Your task to perform on an android device: Open settings Image 0: 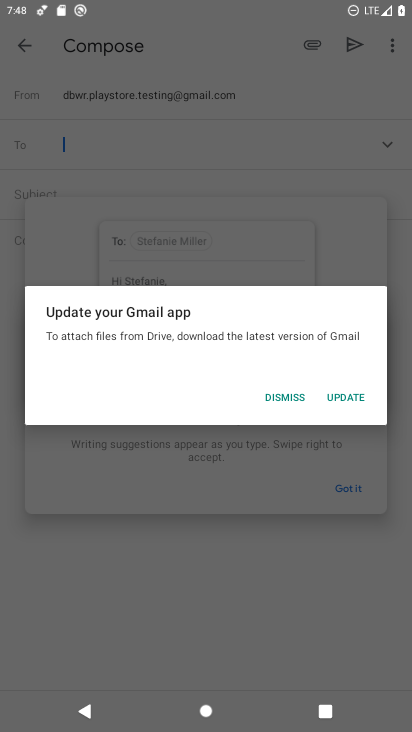
Step 0: press home button
Your task to perform on an android device: Open settings Image 1: 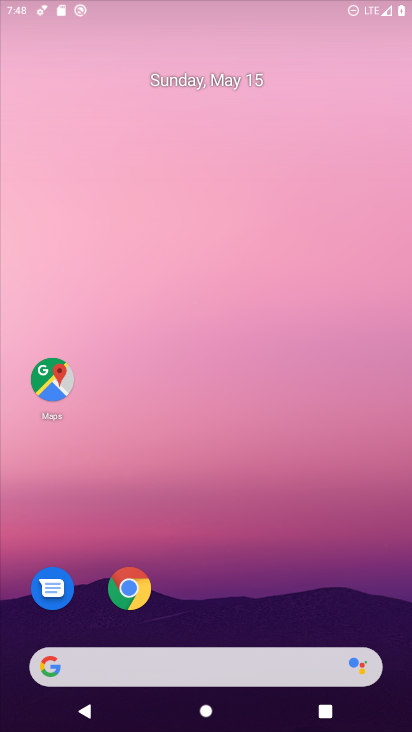
Step 1: drag from (383, 592) to (306, 48)
Your task to perform on an android device: Open settings Image 2: 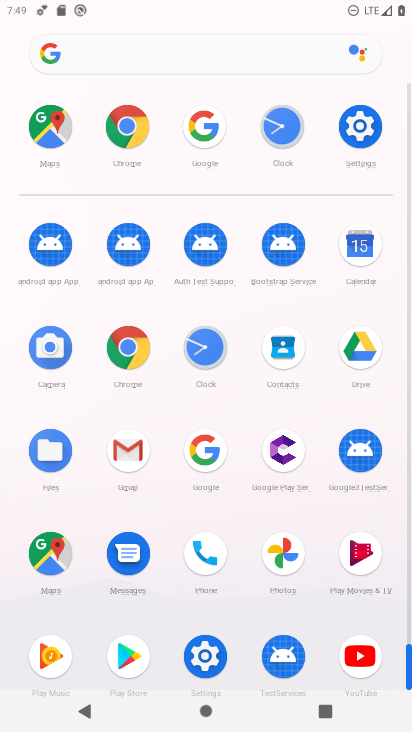
Step 2: click (212, 673)
Your task to perform on an android device: Open settings Image 3: 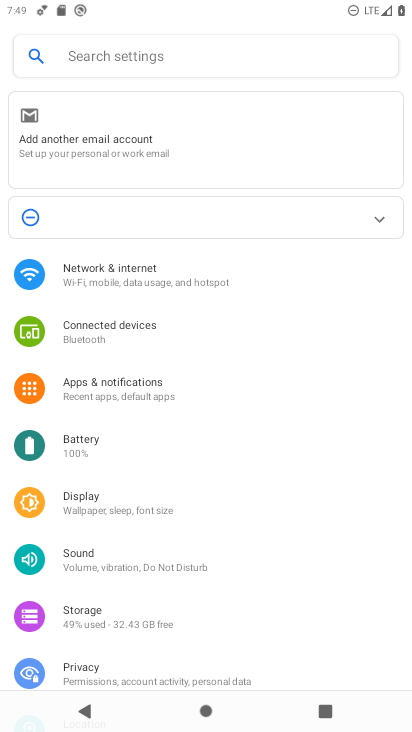
Step 3: task complete